Your task to perform on an android device: Open the phone app and click the voicemail tab. Image 0: 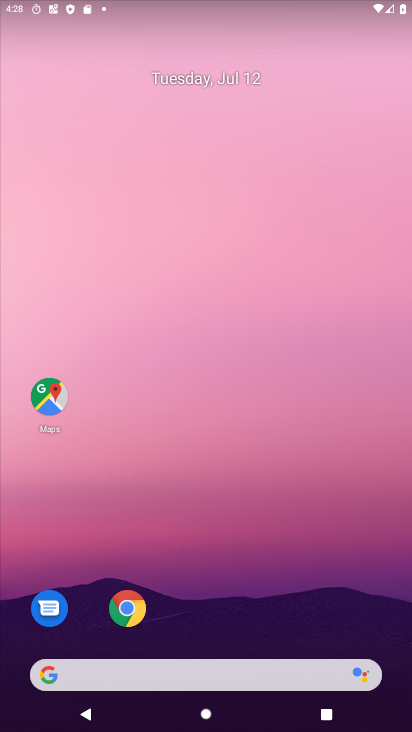
Step 0: drag from (158, 6) to (225, 416)
Your task to perform on an android device: Open the phone app and click the voicemail tab. Image 1: 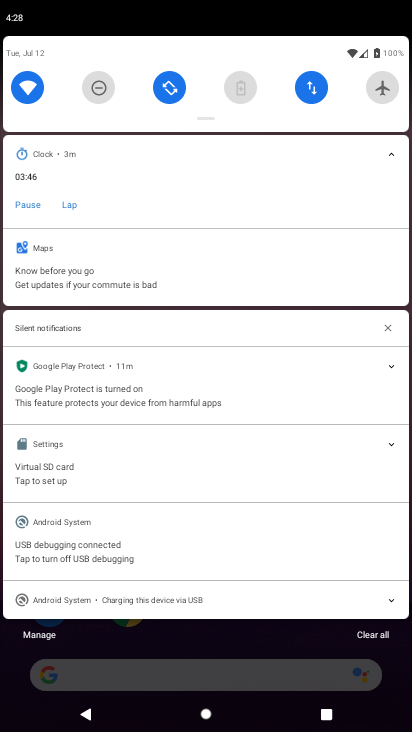
Step 1: press home button
Your task to perform on an android device: Open the phone app and click the voicemail tab. Image 2: 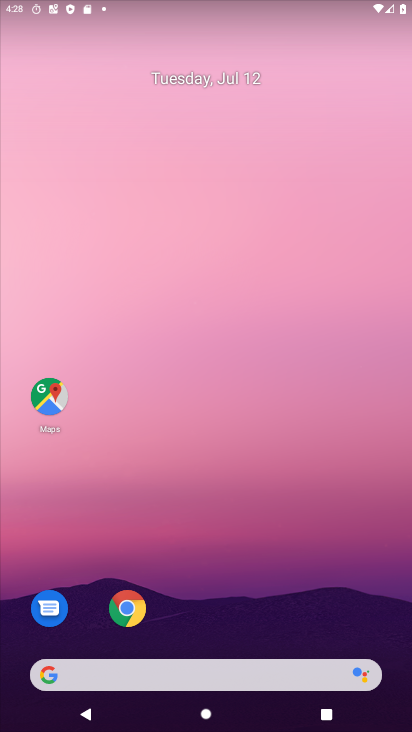
Step 2: drag from (262, 625) to (232, 52)
Your task to perform on an android device: Open the phone app and click the voicemail tab. Image 3: 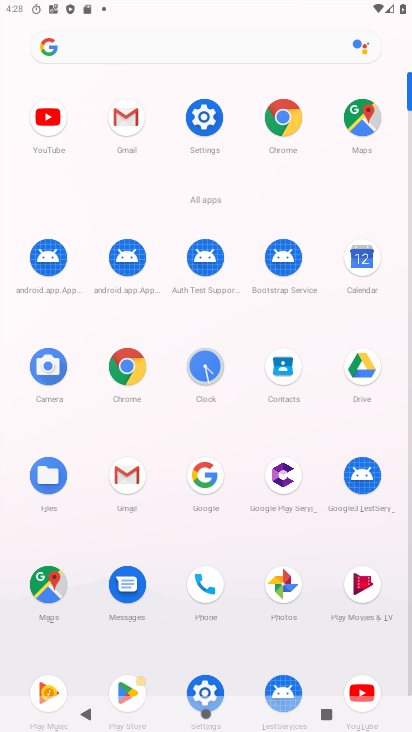
Step 3: click (410, 685)
Your task to perform on an android device: Open the phone app and click the voicemail tab. Image 4: 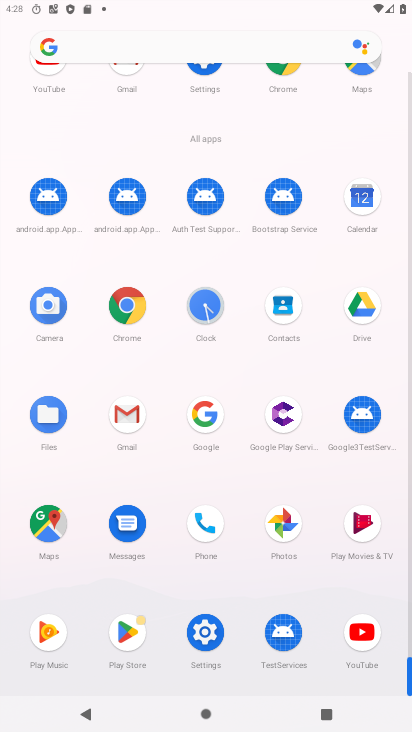
Step 4: click (211, 522)
Your task to perform on an android device: Open the phone app and click the voicemail tab. Image 5: 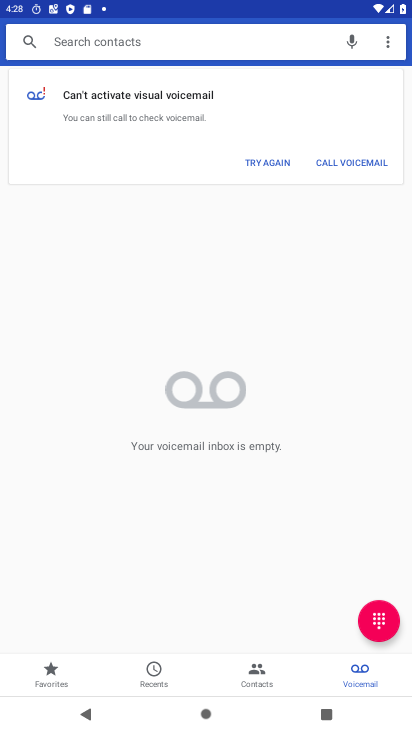
Step 5: click (360, 674)
Your task to perform on an android device: Open the phone app and click the voicemail tab. Image 6: 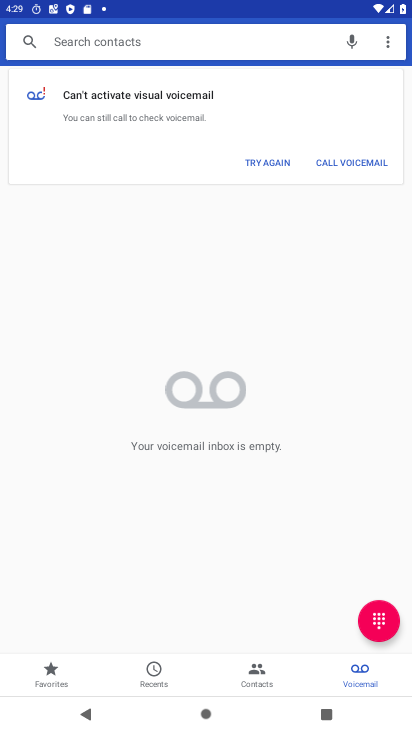
Step 6: task complete